Your task to perform on an android device: Search for flights from Buenos aires to Helsinki Image 0: 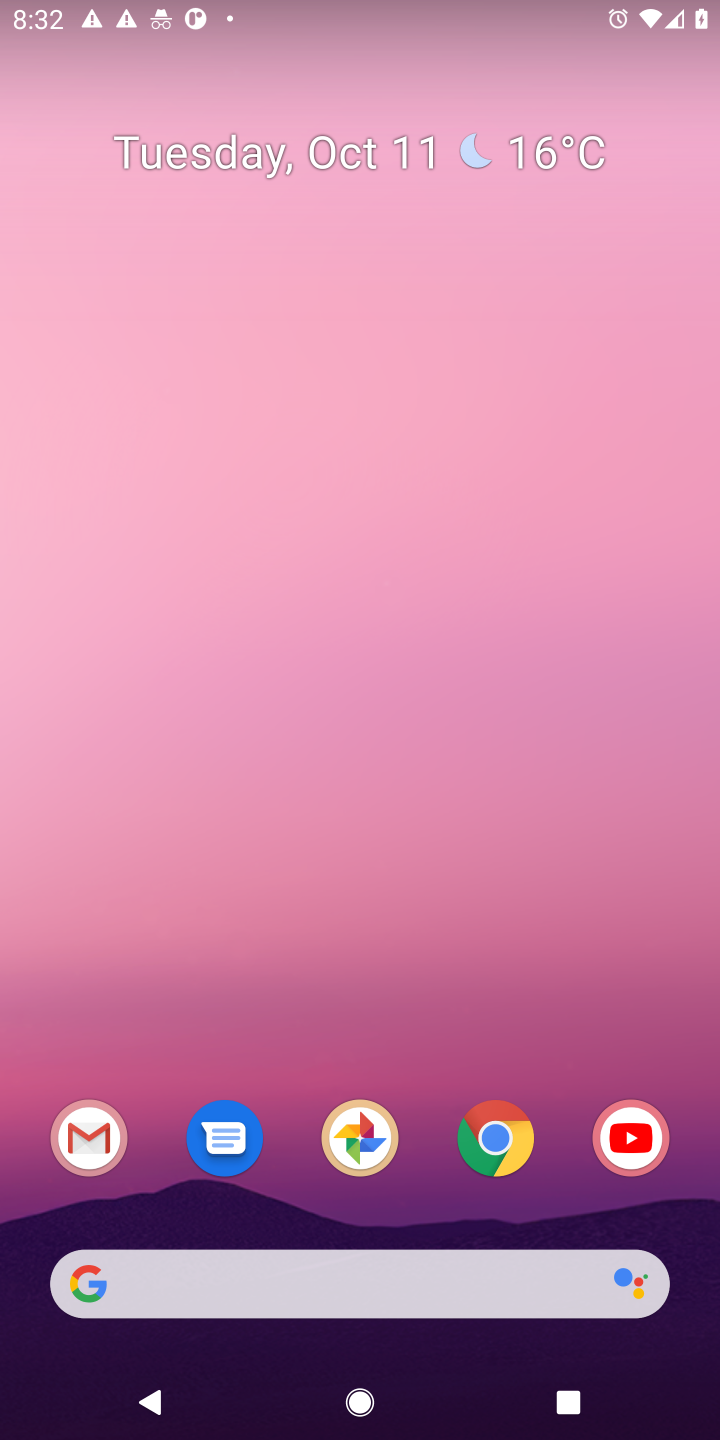
Step 0: click (184, 1267)
Your task to perform on an android device: Search for flights from Buenos aires to Helsinki Image 1: 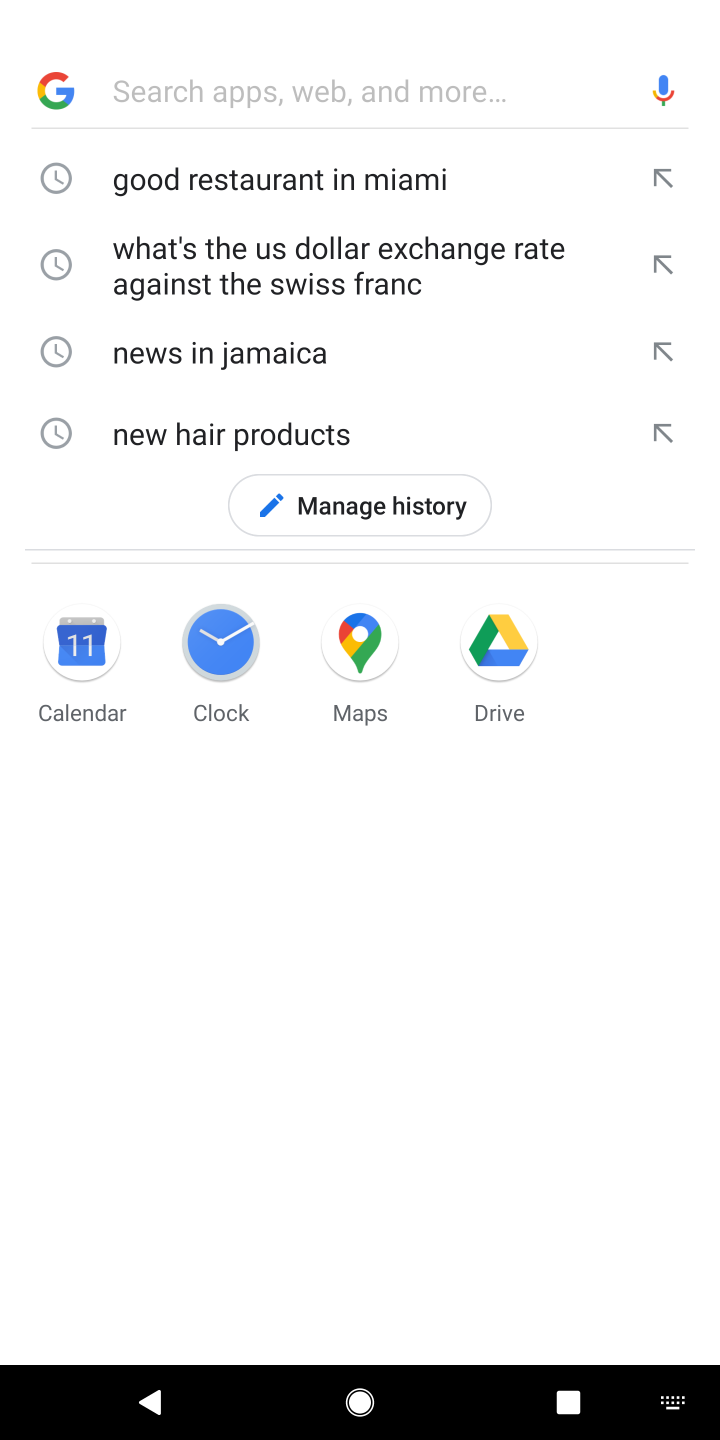
Step 1: type " flights from Buenos aires to Helsinki"
Your task to perform on an android device: Search for flights from Buenos aires to Helsinki Image 2: 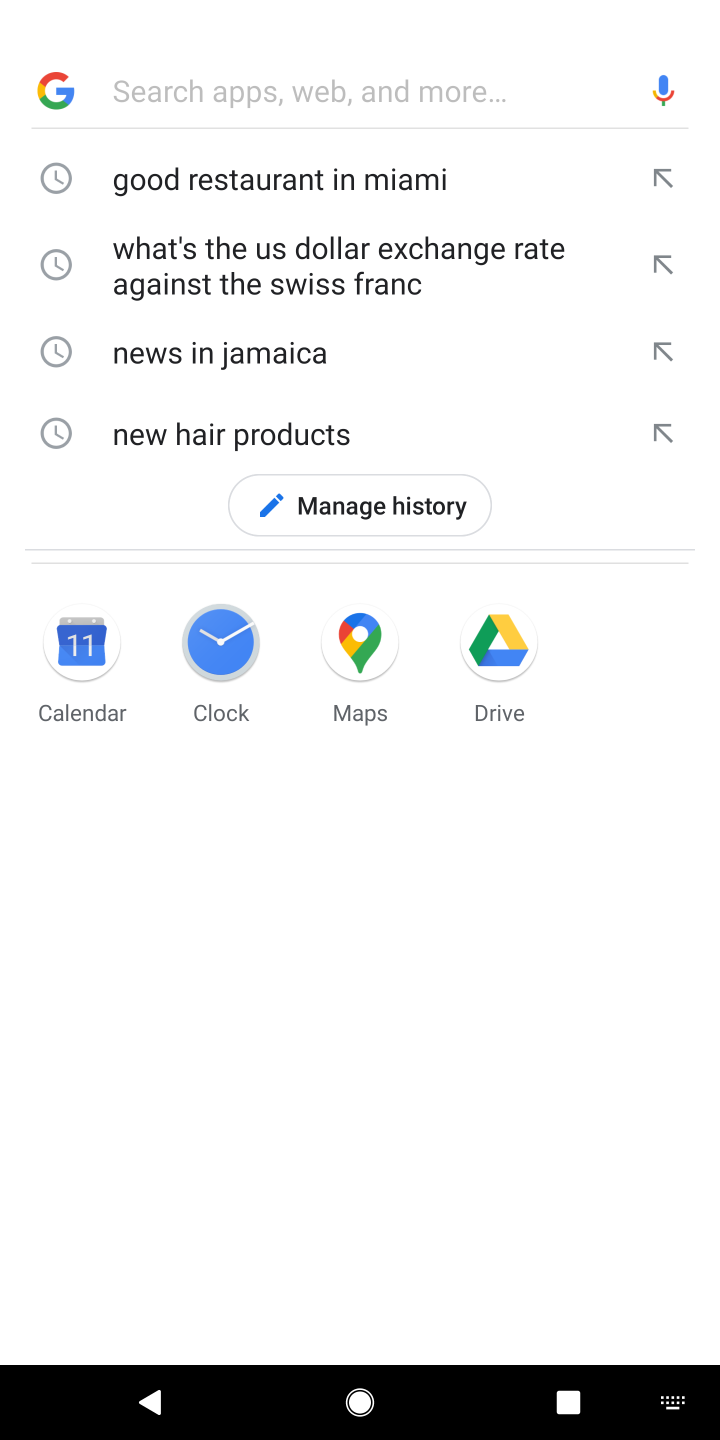
Step 2: click (262, 85)
Your task to perform on an android device: Search for flights from Buenos aires to Helsinki Image 3: 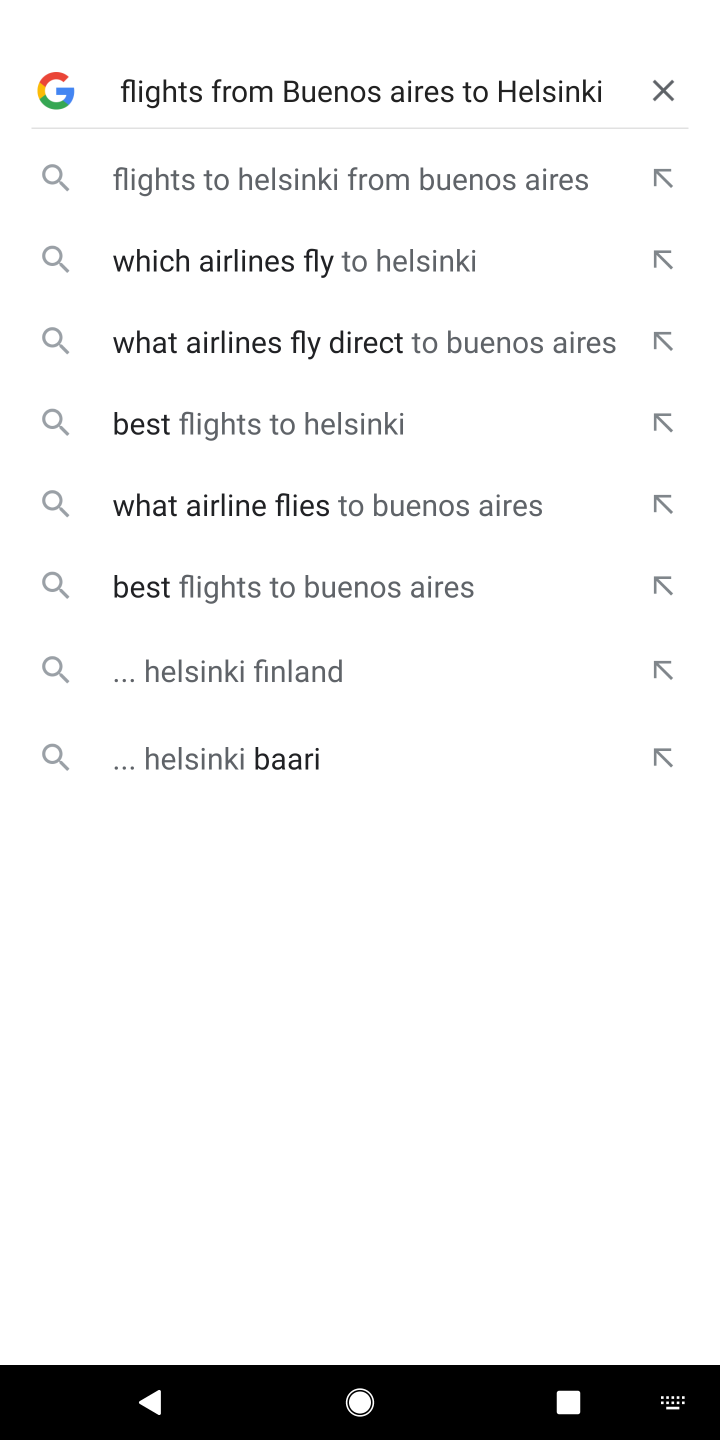
Step 3: click (481, 173)
Your task to perform on an android device: Search for flights from Buenos aires to Helsinki Image 4: 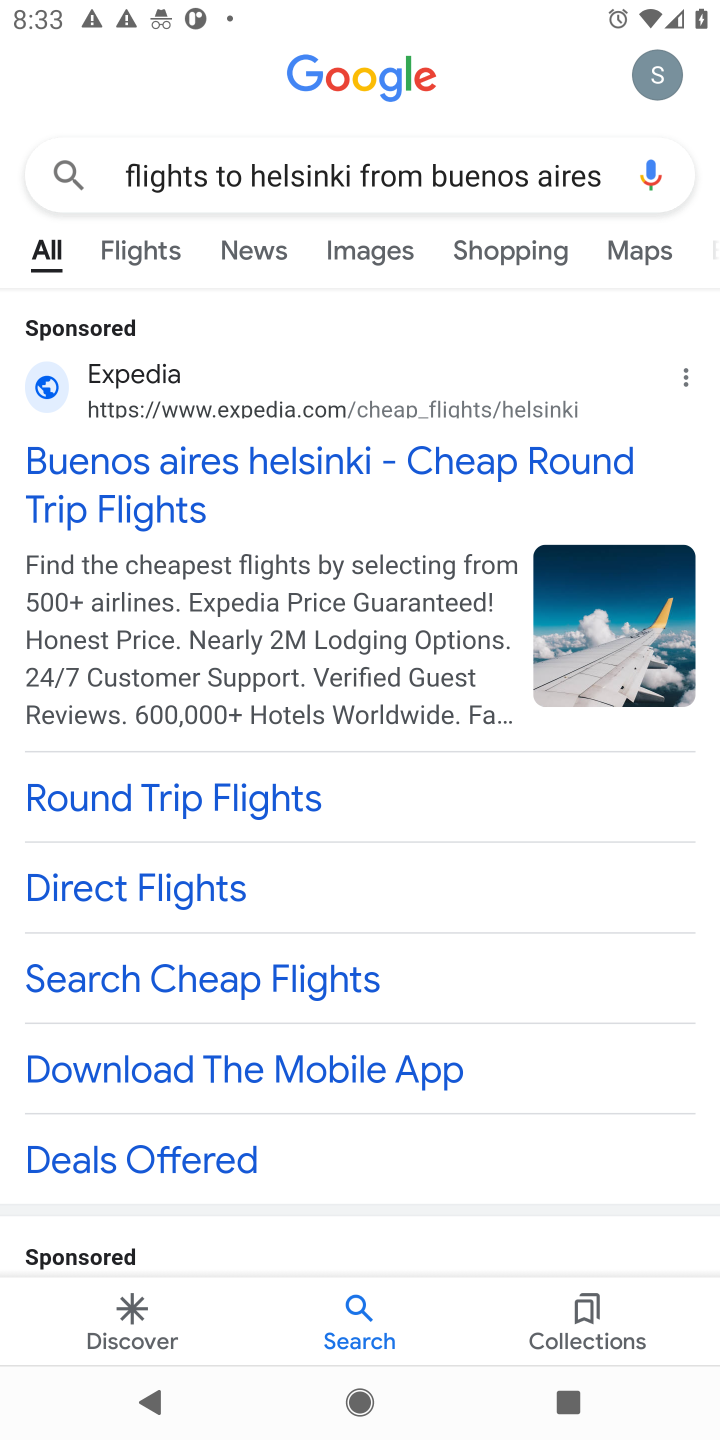
Step 4: click (172, 457)
Your task to perform on an android device: Search for flights from Buenos aires to Helsinki Image 5: 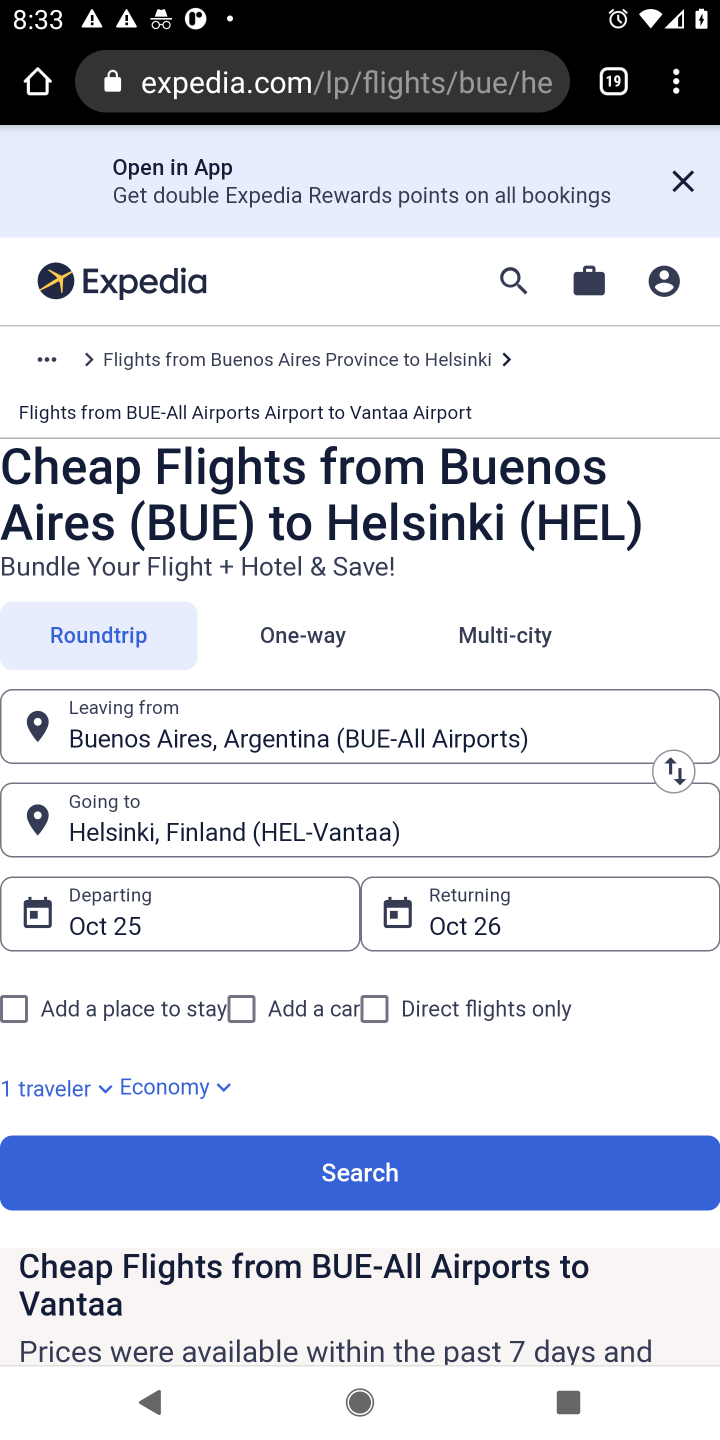
Step 5: click (386, 1167)
Your task to perform on an android device: Search for flights from Buenos aires to Helsinki Image 6: 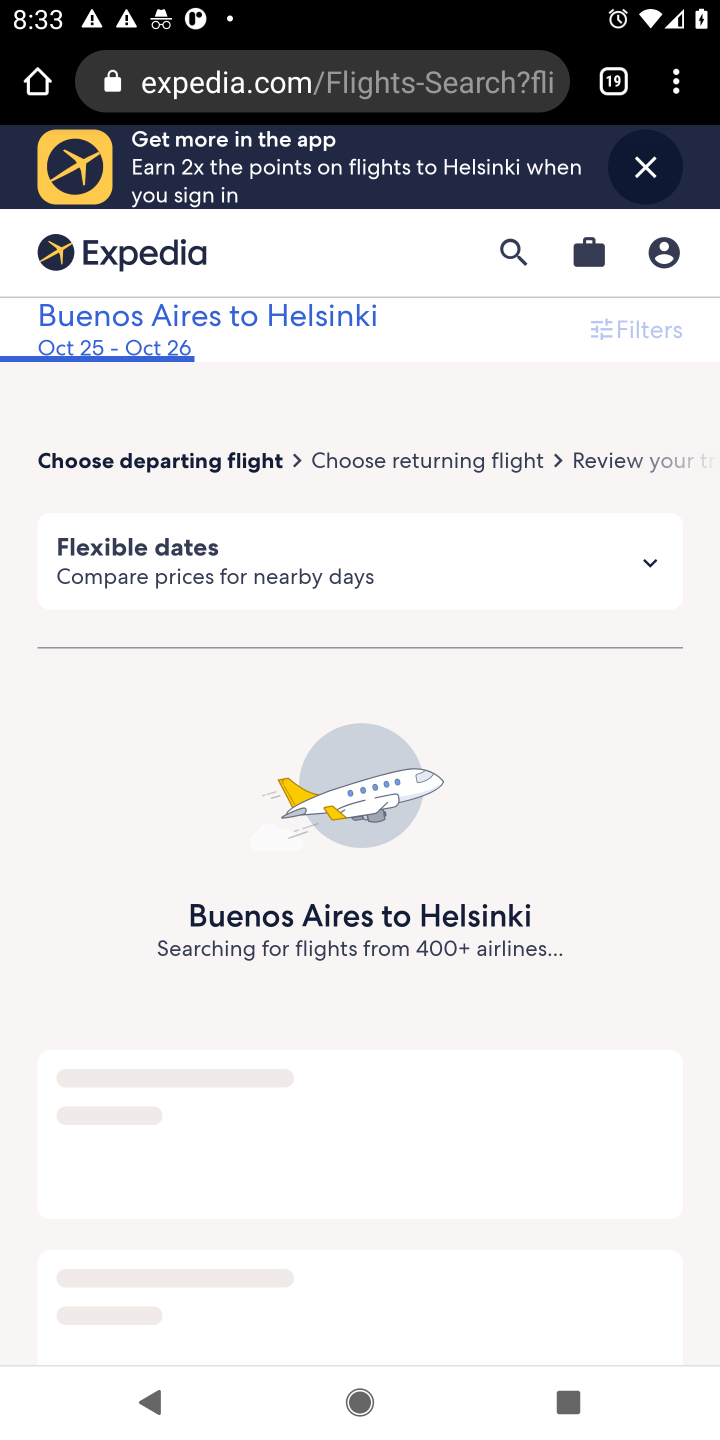
Step 6: task complete